Your task to perform on an android device: toggle javascript in the chrome app Image 0: 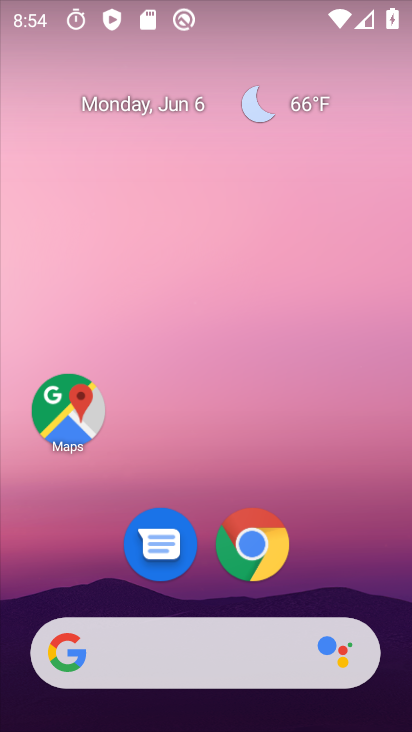
Step 0: click (284, 552)
Your task to perform on an android device: toggle javascript in the chrome app Image 1: 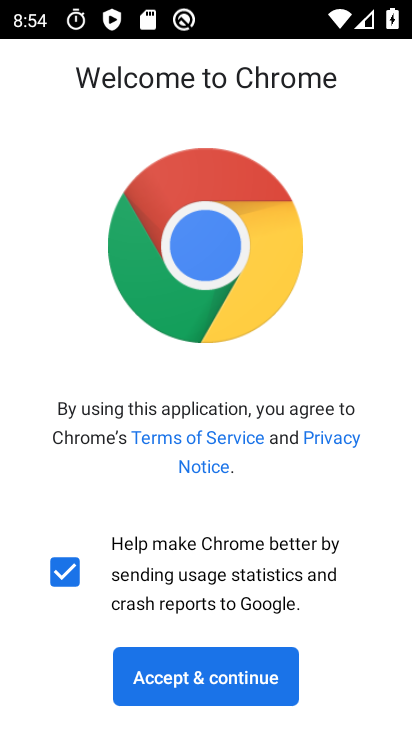
Step 1: click (241, 665)
Your task to perform on an android device: toggle javascript in the chrome app Image 2: 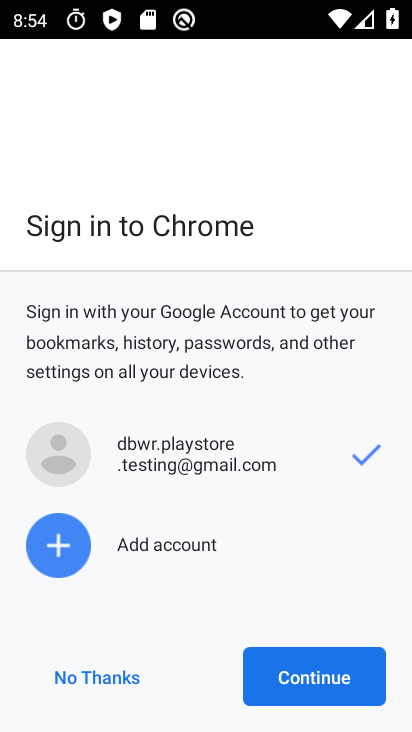
Step 2: click (309, 674)
Your task to perform on an android device: toggle javascript in the chrome app Image 3: 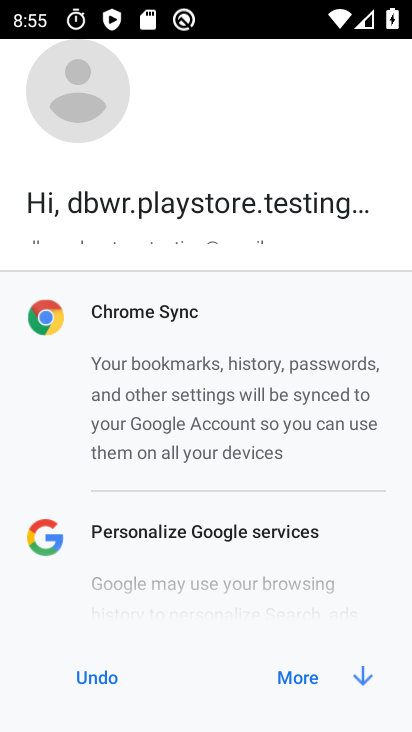
Step 3: click (309, 674)
Your task to perform on an android device: toggle javascript in the chrome app Image 4: 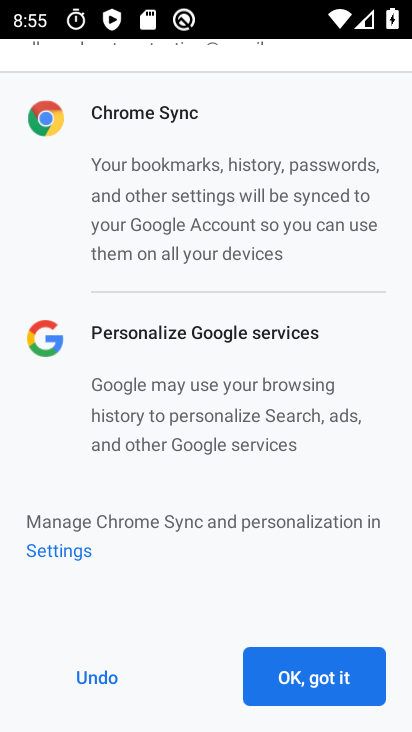
Step 4: click (309, 674)
Your task to perform on an android device: toggle javascript in the chrome app Image 5: 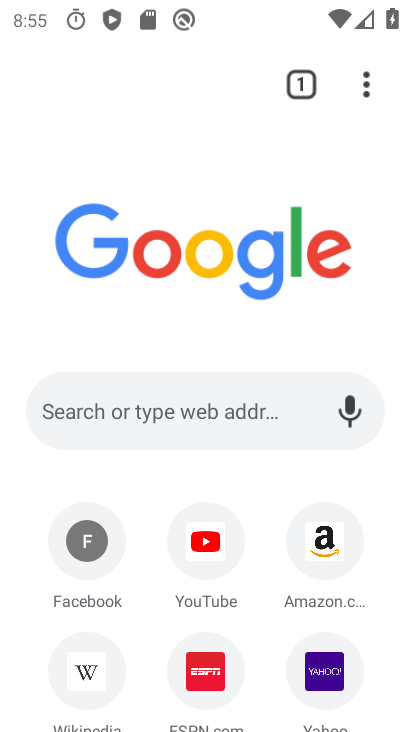
Step 5: click (361, 73)
Your task to perform on an android device: toggle javascript in the chrome app Image 6: 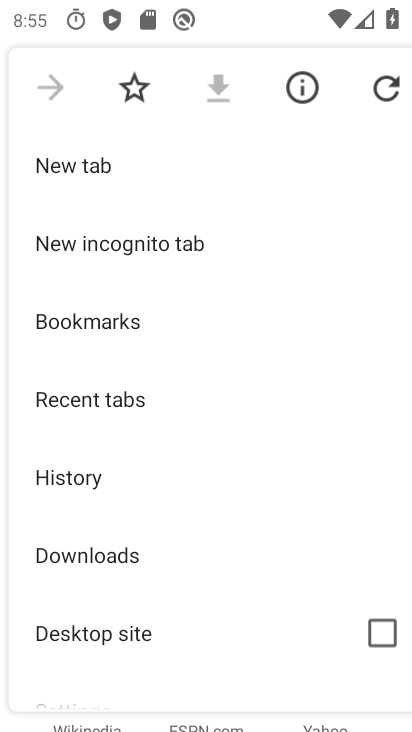
Step 6: drag from (189, 650) to (135, 120)
Your task to perform on an android device: toggle javascript in the chrome app Image 7: 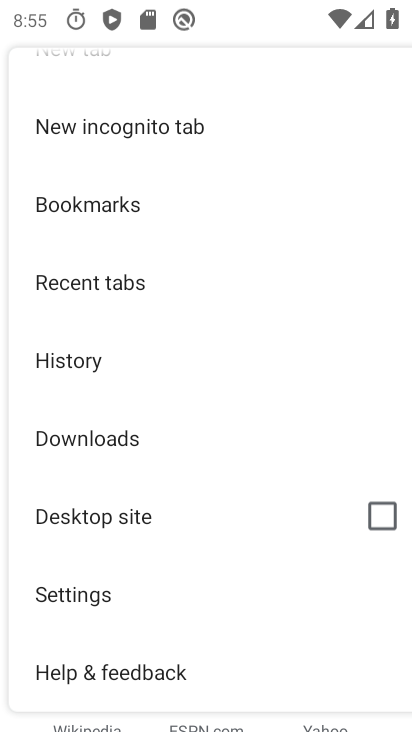
Step 7: click (100, 615)
Your task to perform on an android device: toggle javascript in the chrome app Image 8: 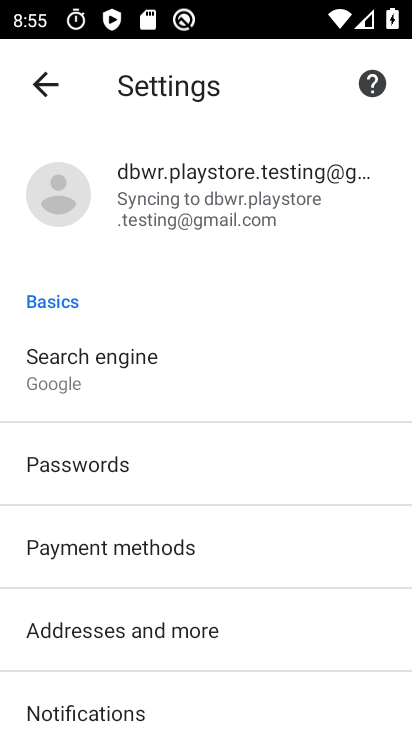
Step 8: drag from (174, 705) to (92, 223)
Your task to perform on an android device: toggle javascript in the chrome app Image 9: 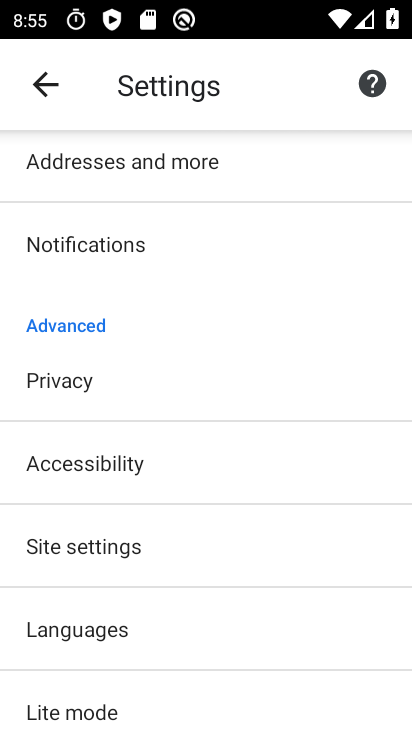
Step 9: click (131, 541)
Your task to perform on an android device: toggle javascript in the chrome app Image 10: 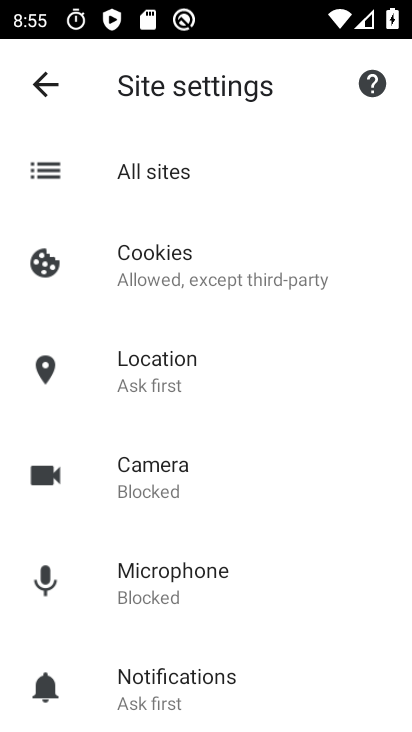
Step 10: drag from (217, 648) to (179, 160)
Your task to perform on an android device: toggle javascript in the chrome app Image 11: 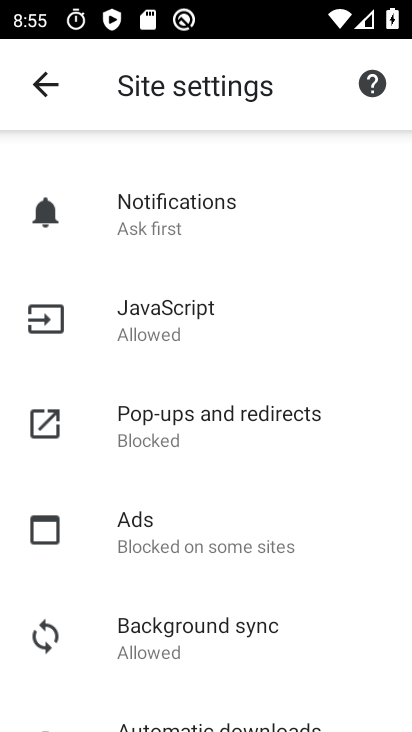
Step 11: click (200, 317)
Your task to perform on an android device: toggle javascript in the chrome app Image 12: 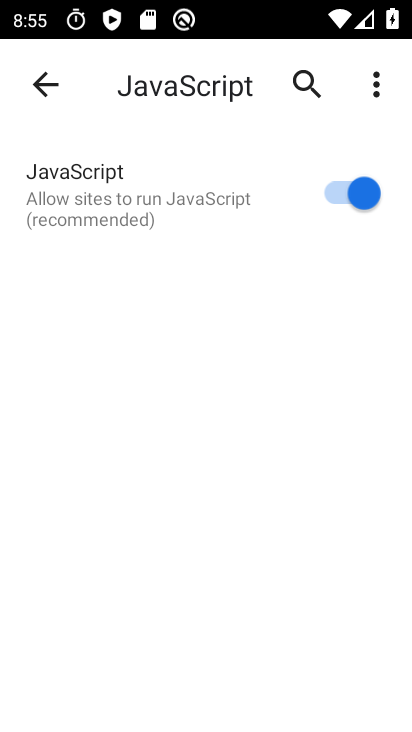
Step 12: click (351, 195)
Your task to perform on an android device: toggle javascript in the chrome app Image 13: 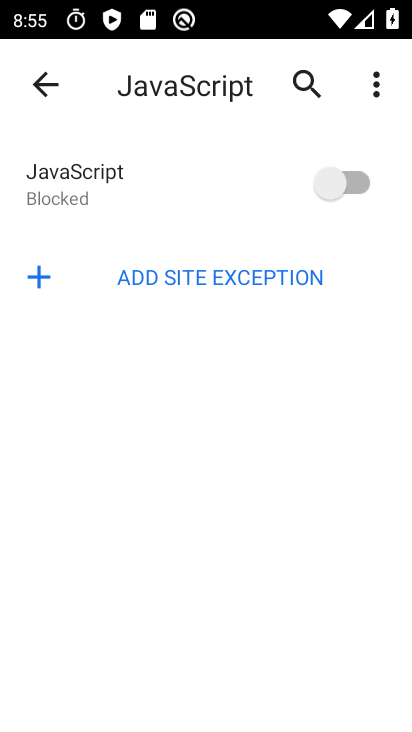
Step 13: task complete